Your task to perform on an android device: Is it going to rain today? Image 0: 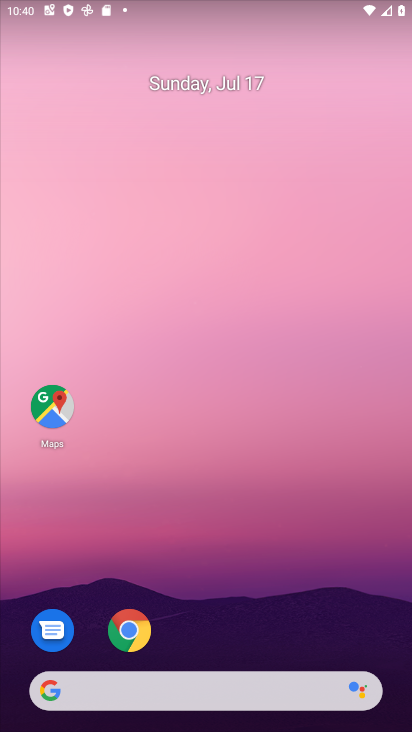
Step 0: click (293, 634)
Your task to perform on an android device: Is it going to rain today? Image 1: 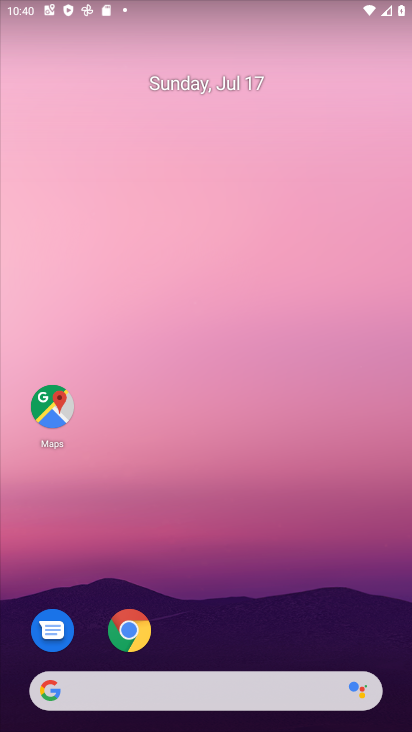
Step 1: drag from (293, 634) to (276, 162)
Your task to perform on an android device: Is it going to rain today? Image 2: 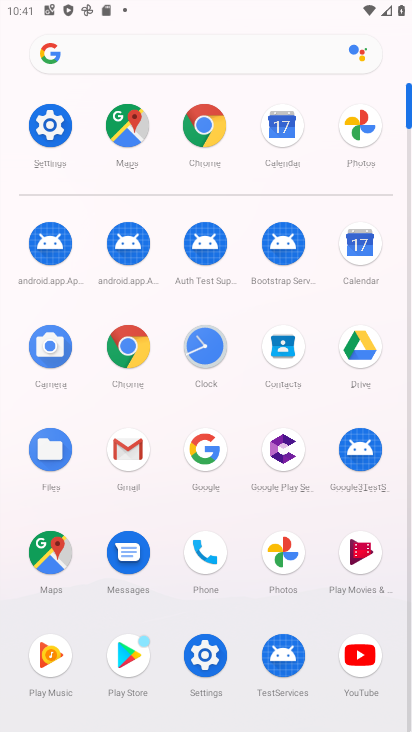
Step 2: click (266, 58)
Your task to perform on an android device: Is it going to rain today? Image 3: 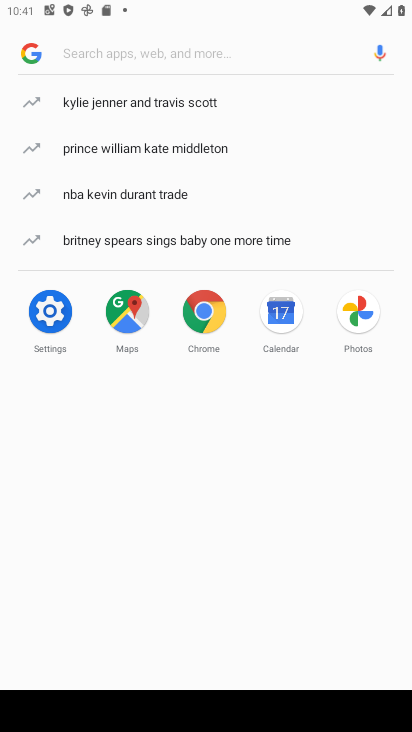
Step 3: type "rain"
Your task to perform on an android device: Is it going to rain today? Image 4: 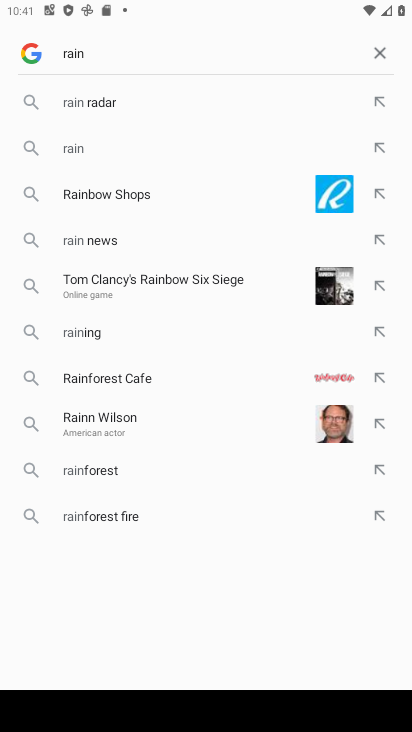
Step 4: click (126, 152)
Your task to perform on an android device: Is it going to rain today? Image 5: 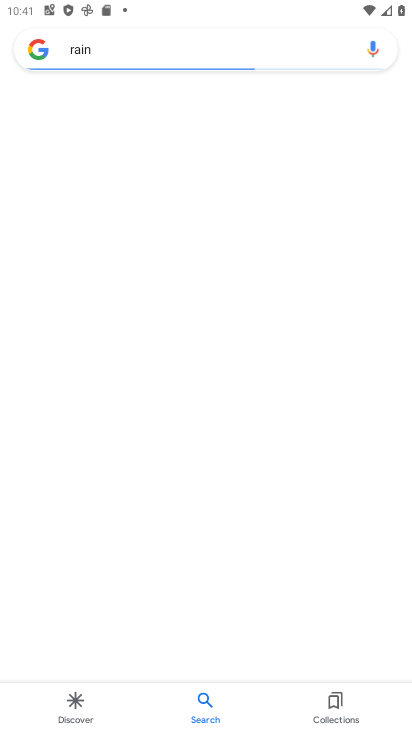
Step 5: task complete